Your task to perform on an android device: Check the weather Image 0: 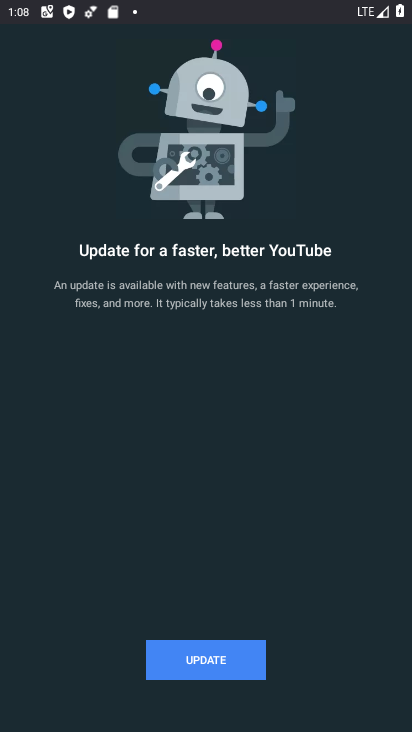
Step 0: press home button
Your task to perform on an android device: Check the weather Image 1: 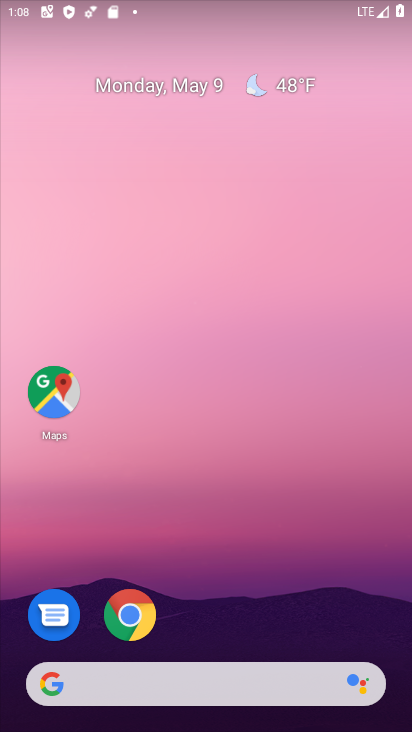
Step 1: click (282, 83)
Your task to perform on an android device: Check the weather Image 2: 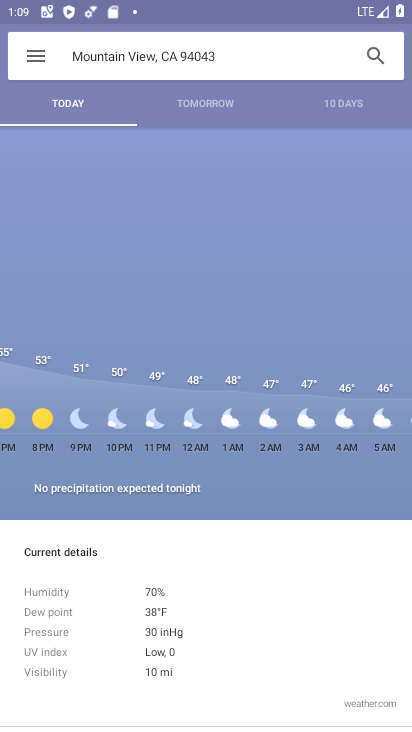
Step 2: task complete